Your task to perform on an android device: delete location history Image 0: 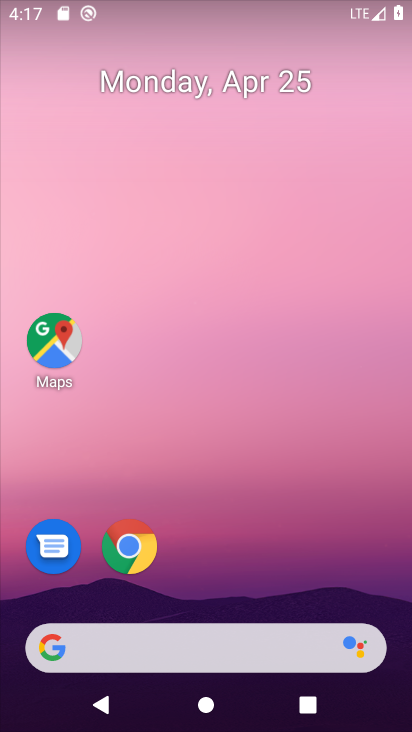
Step 0: drag from (259, 527) to (365, 48)
Your task to perform on an android device: delete location history Image 1: 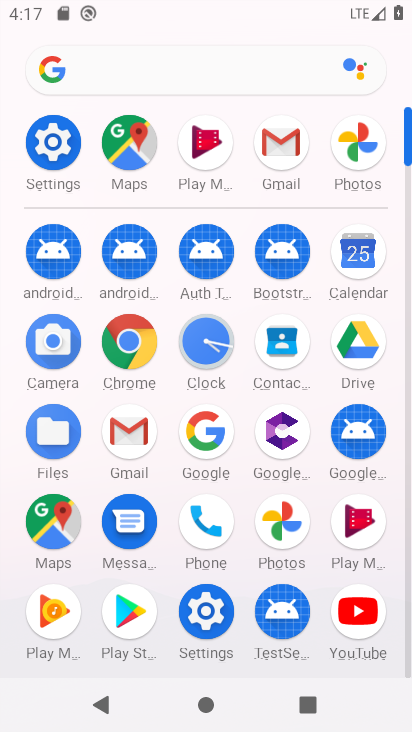
Step 1: click (123, 140)
Your task to perform on an android device: delete location history Image 2: 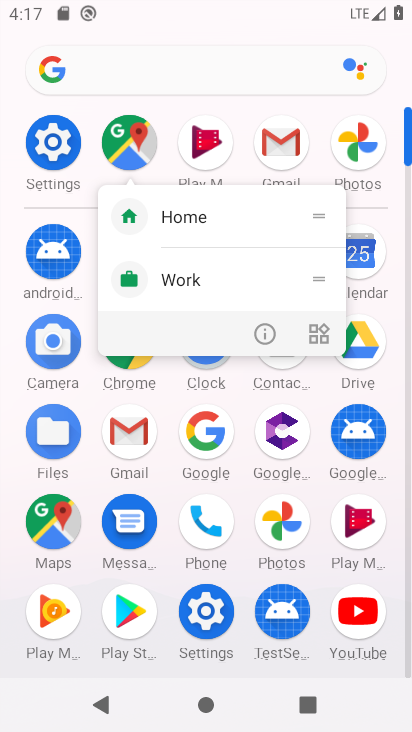
Step 2: click (123, 140)
Your task to perform on an android device: delete location history Image 3: 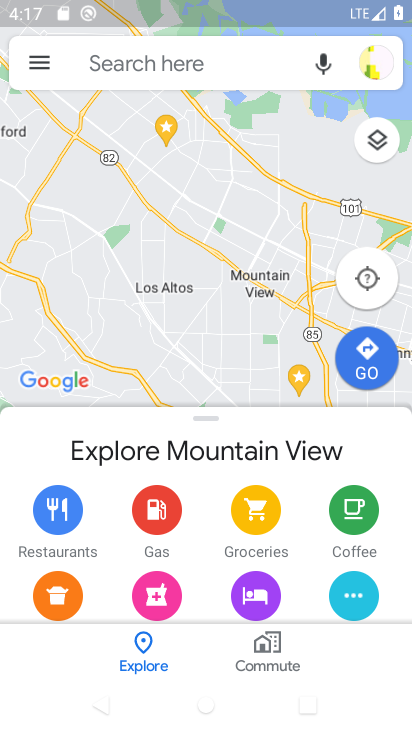
Step 3: click (37, 67)
Your task to perform on an android device: delete location history Image 4: 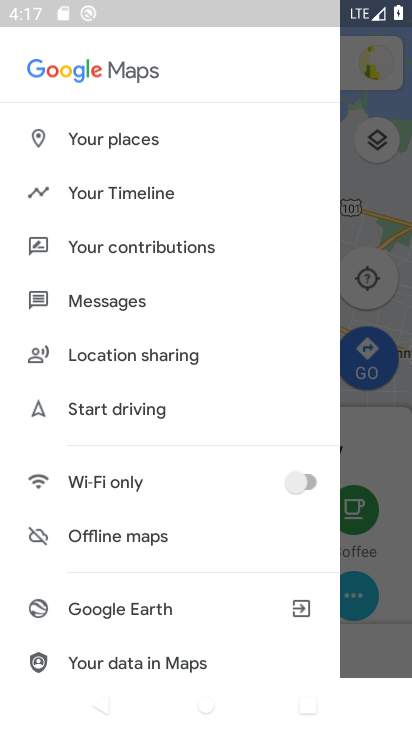
Step 4: click (156, 198)
Your task to perform on an android device: delete location history Image 5: 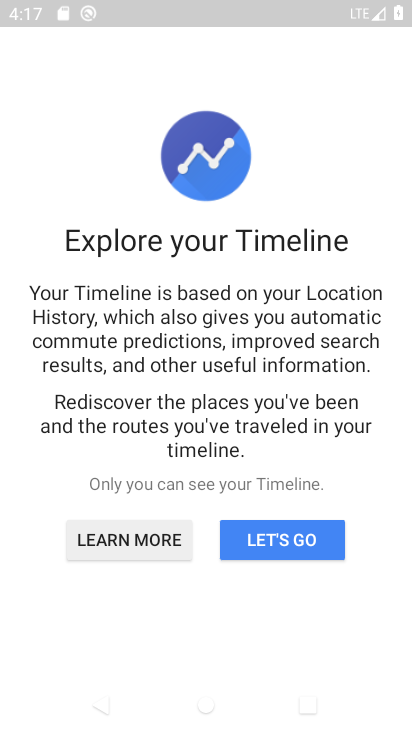
Step 5: click (241, 548)
Your task to perform on an android device: delete location history Image 6: 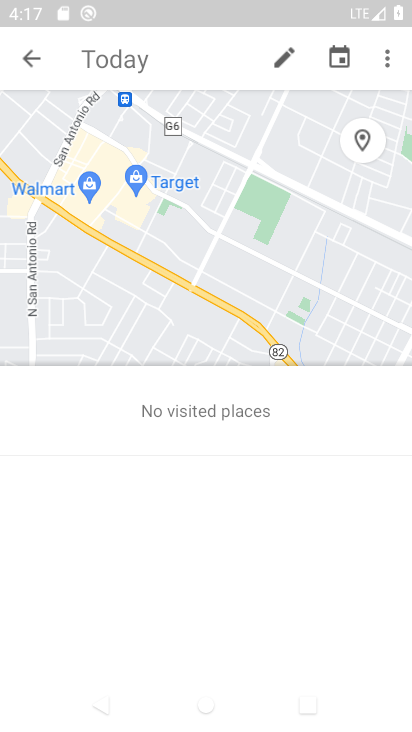
Step 6: click (389, 64)
Your task to perform on an android device: delete location history Image 7: 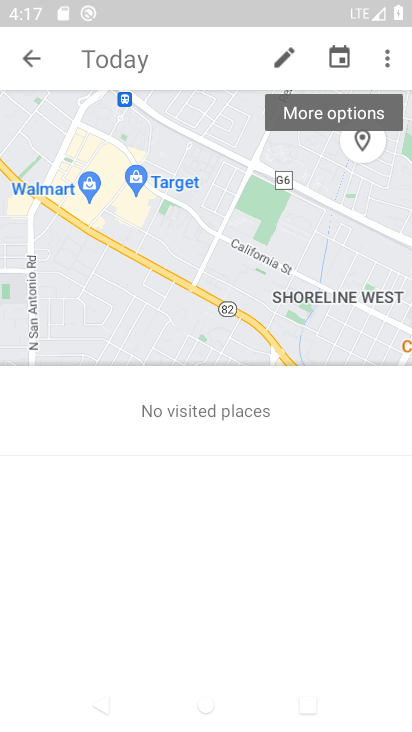
Step 7: click (389, 64)
Your task to perform on an android device: delete location history Image 8: 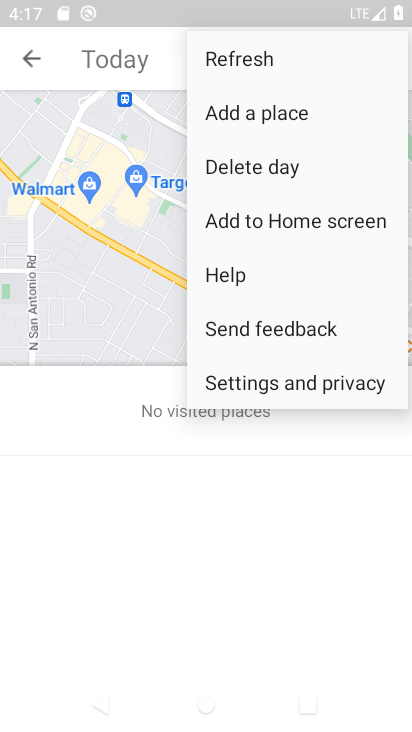
Step 8: click (226, 389)
Your task to perform on an android device: delete location history Image 9: 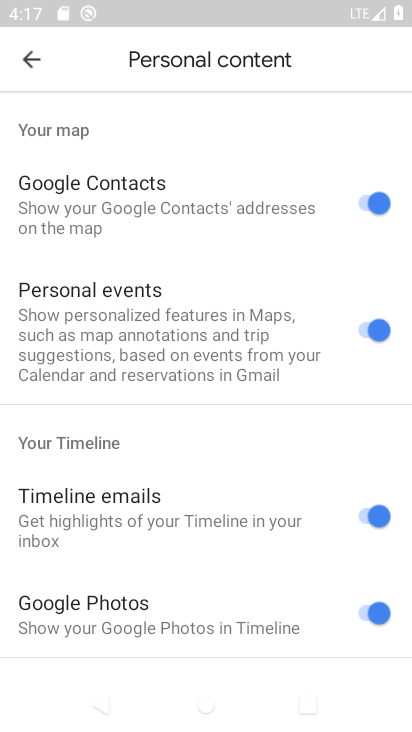
Step 9: drag from (177, 556) to (299, 138)
Your task to perform on an android device: delete location history Image 10: 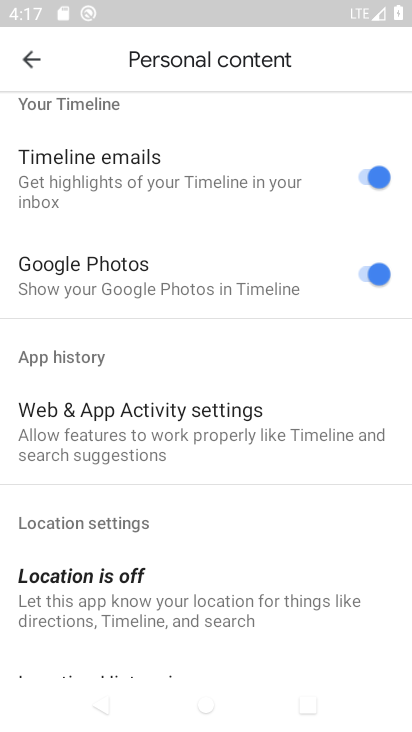
Step 10: drag from (162, 625) to (235, 176)
Your task to perform on an android device: delete location history Image 11: 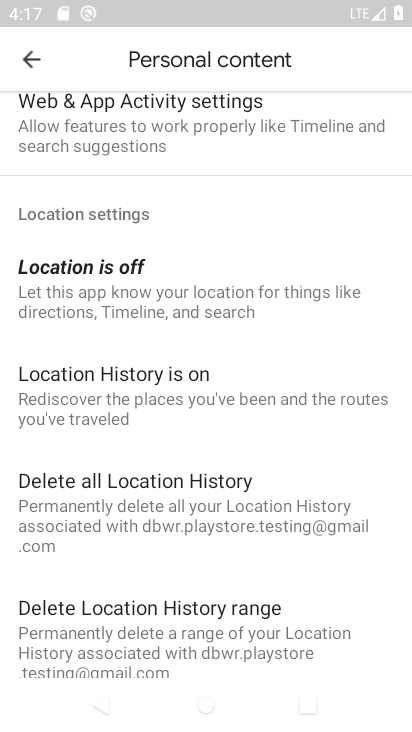
Step 11: click (190, 485)
Your task to perform on an android device: delete location history Image 12: 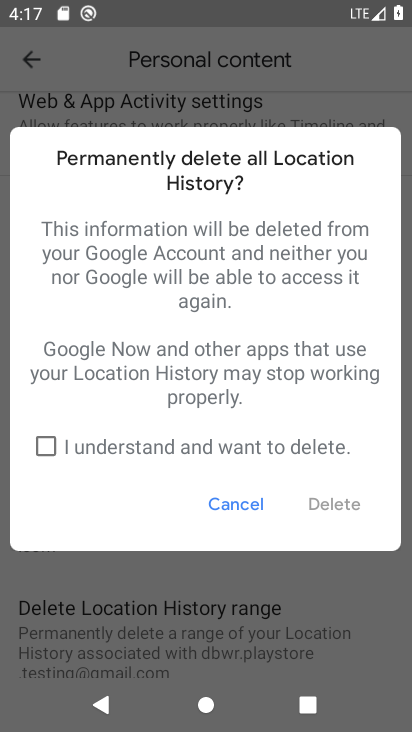
Step 12: click (178, 460)
Your task to perform on an android device: delete location history Image 13: 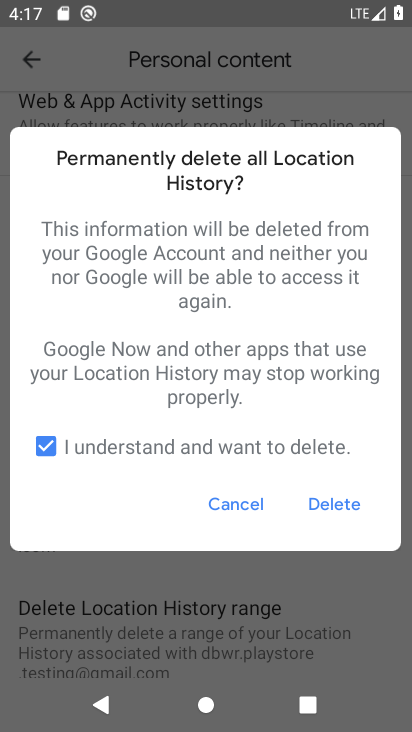
Step 13: click (309, 496)
Your task to perform on an android device: delete location history Image 14: 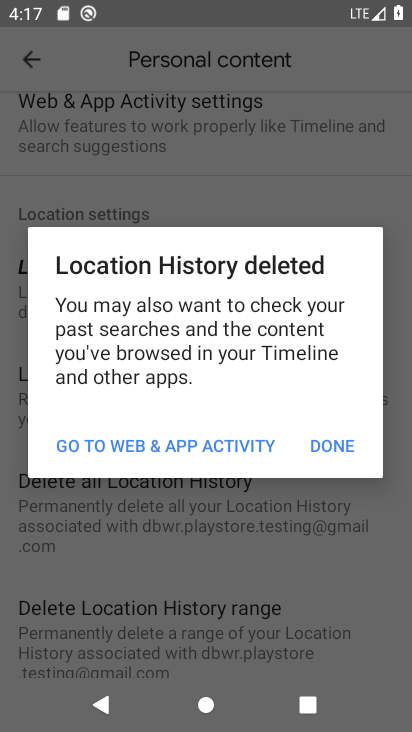
Step 14: click (323, 452)
Your task to perform on an android device: delete location history Image 15: 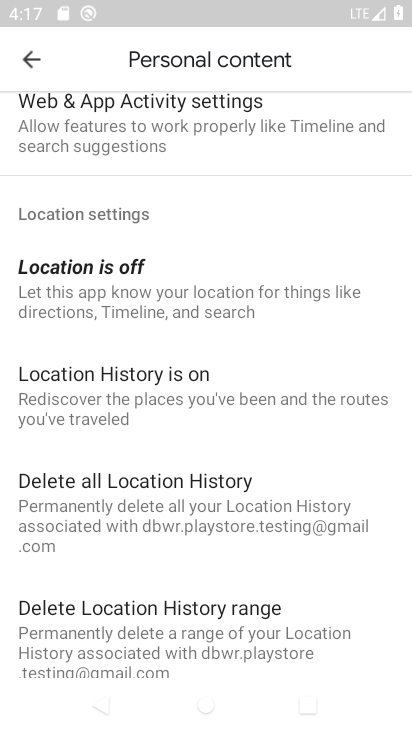
Step 15: task complete